Your task to perform on an android device: see tabs open on other devices in the chrome app Image 0: 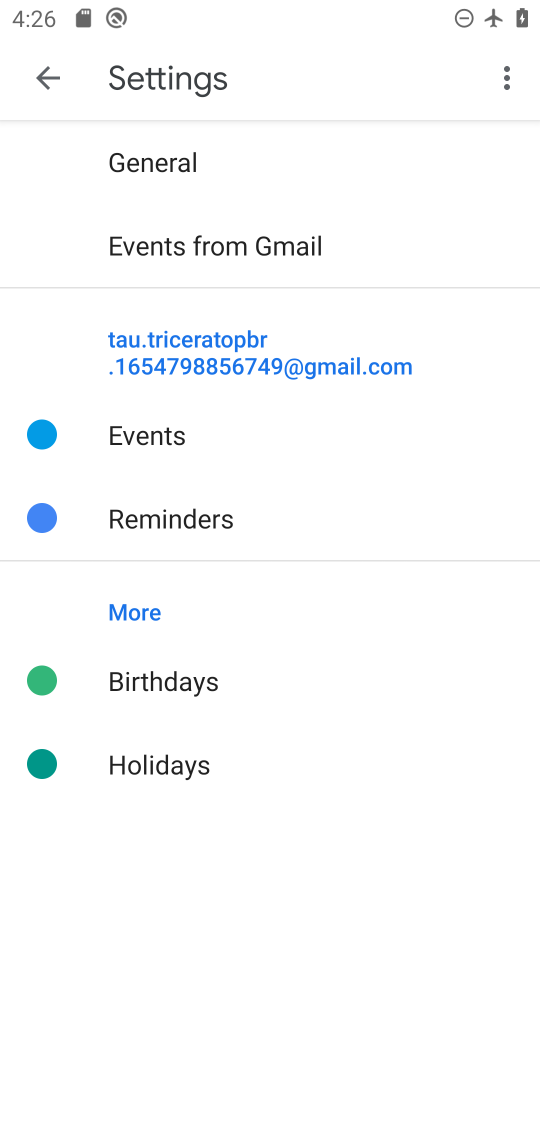
Step 0: press home button
Your task to perform on an android device: see tabs open on other devices in the chrome app Image 1: 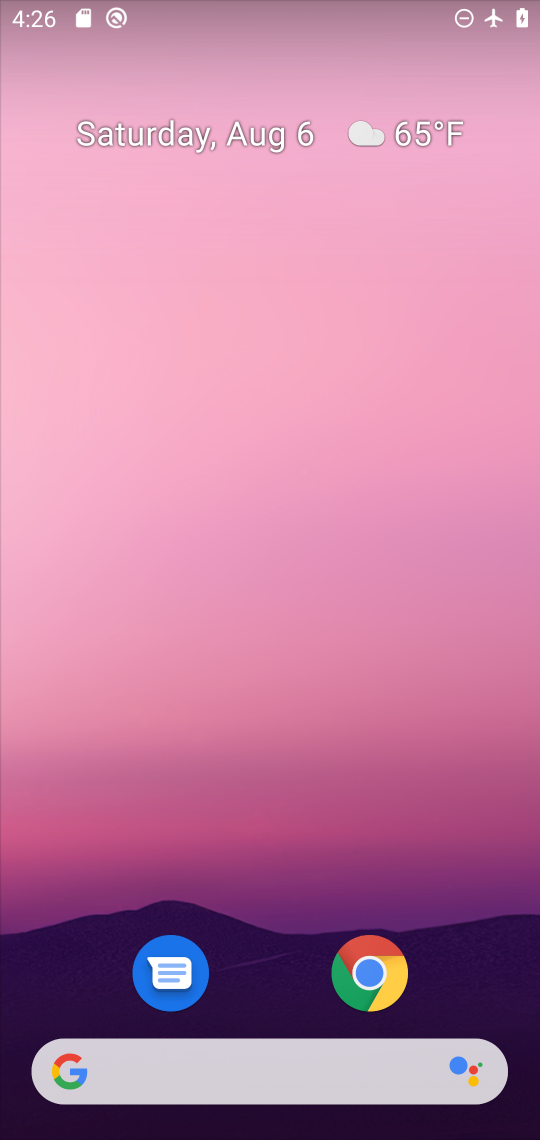
Step 1: drag from (286, 948) to (246, 57)
Your task to perform on an android device: see tabs open on other devices in the chrome app Image 2: 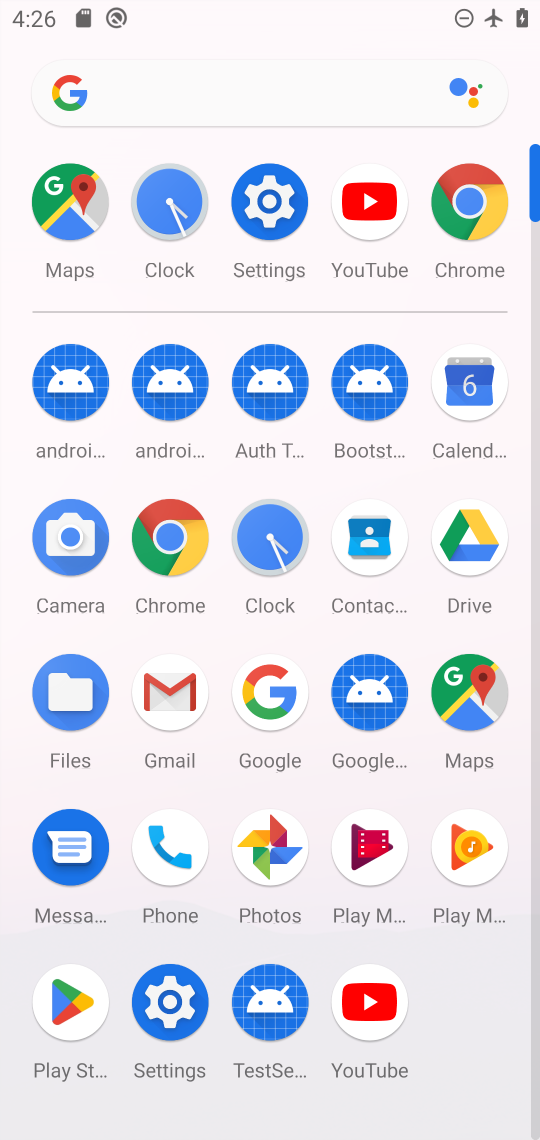
Step 2: click (170, 531)
Your task to perform on an android device: see tabs open on other devices in the chrome app Image 3: 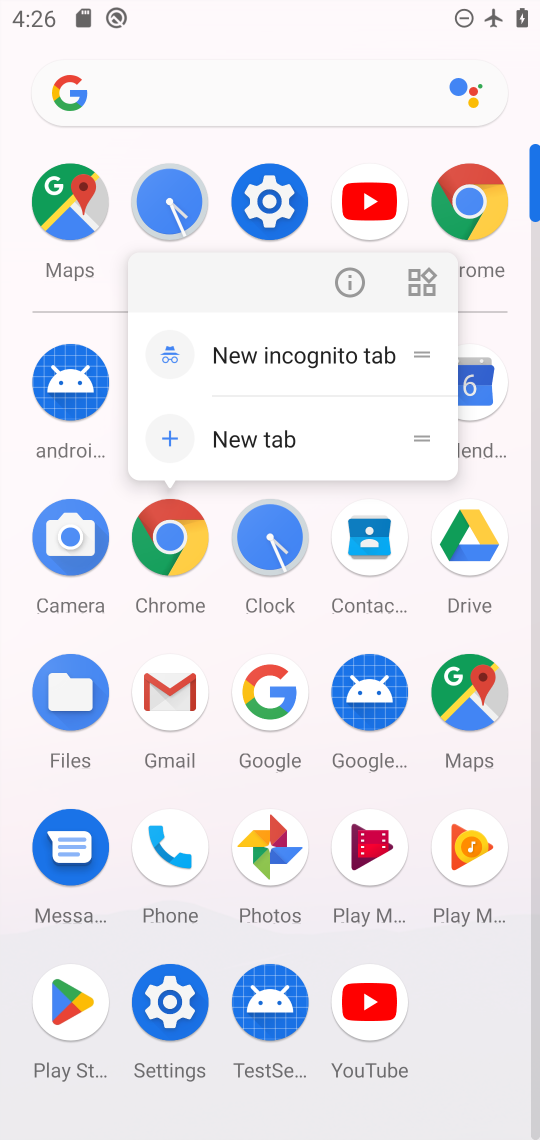
Step 3: click (166, 536)
Your task to perform on an android device: see tabs open on other devices in the chrome app Image 4: 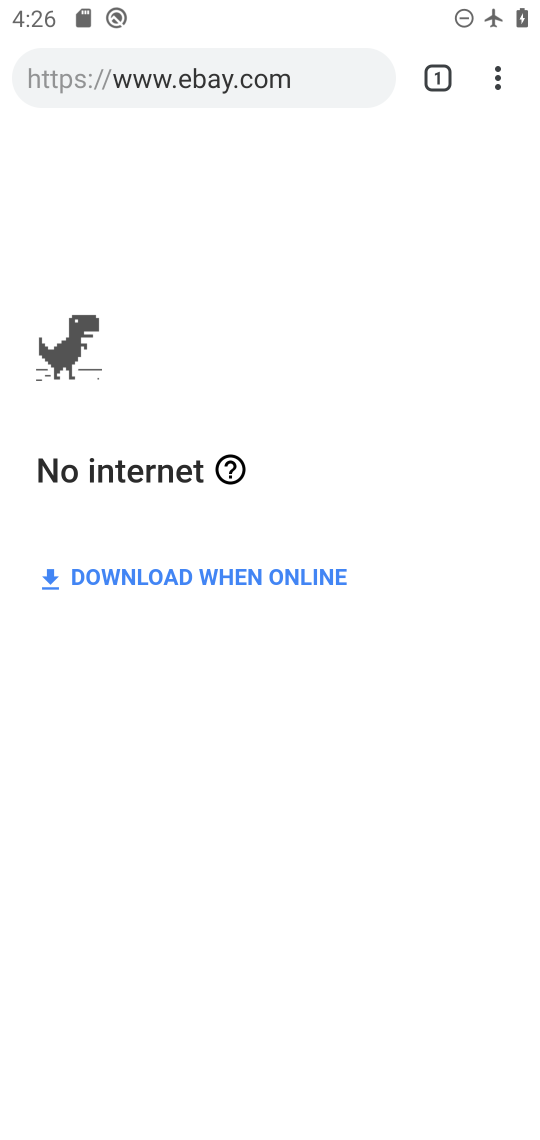
Step 4: task complete